Your task to perform on an android device: Open Youtube and go to "Your channel" Image 0: 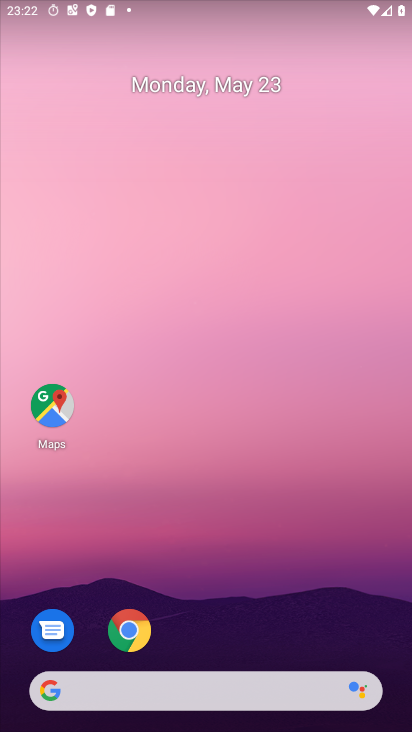
Step 0: drag from (283, 284) to (295, 37)
Your task to perform on an android device: Open Youtube and go to "Your channel" Image 1: 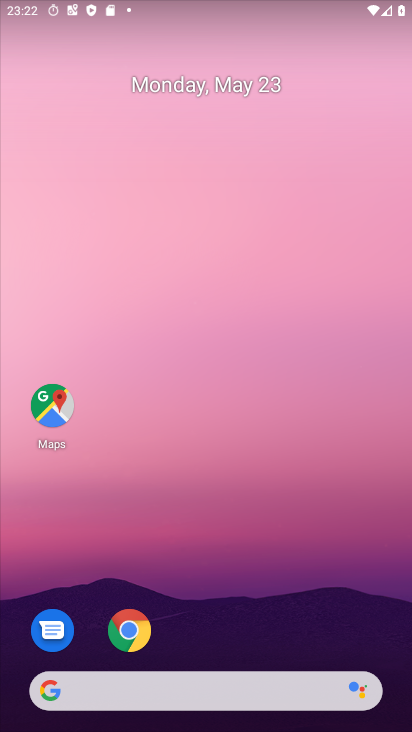
Step 1: drag from (273, 649) to (296, 31)
Your task to perform on an android device: Open Youtube and go to "Your channel" Image 2: 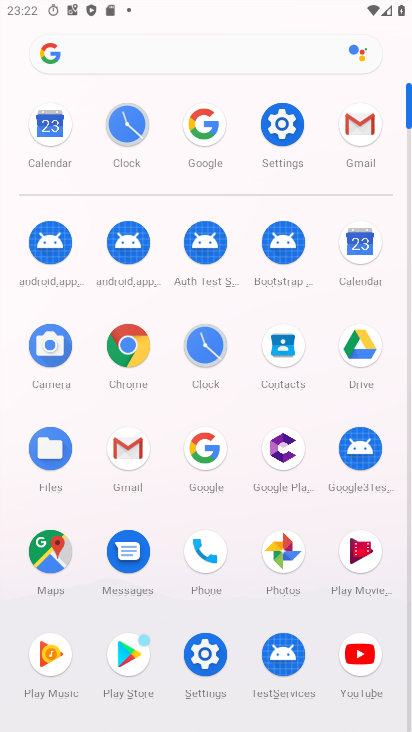
Step 2: click (360, 657)
Your task to perform on an android device: Open Youtube and go to "Your channel" Image 3: 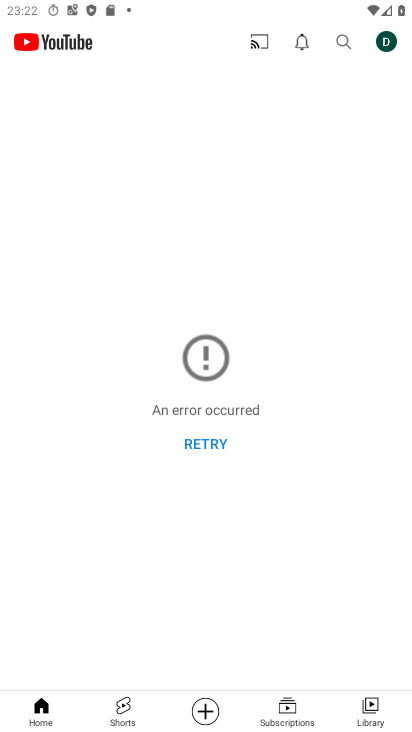
Step 3: click (389, 46)
Your task to perform on an android device: Open Youtube and go to "Your channel" Image 4: 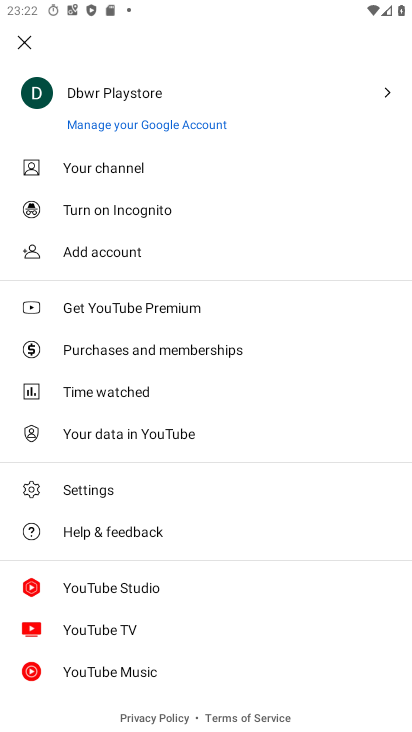
Step 4: click (80, 163)
Your task to perform on an android device: Open Youtube and go to "Your channel" Image 5: 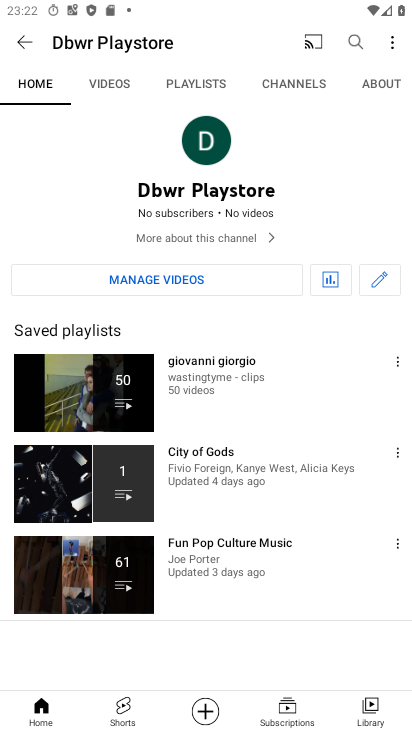
Step 5: task complete